Your task to perform on an android device: Do I have any events this weekend? Image 0: 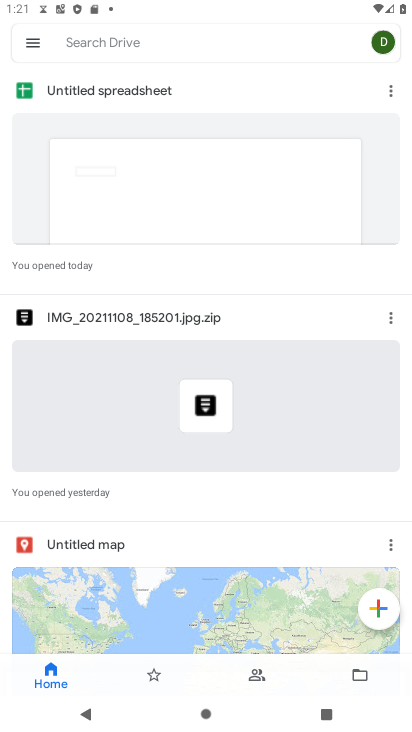
Step 0: press back button
Your task to perform on an android device: Do I have any events this weekend? Image 1: 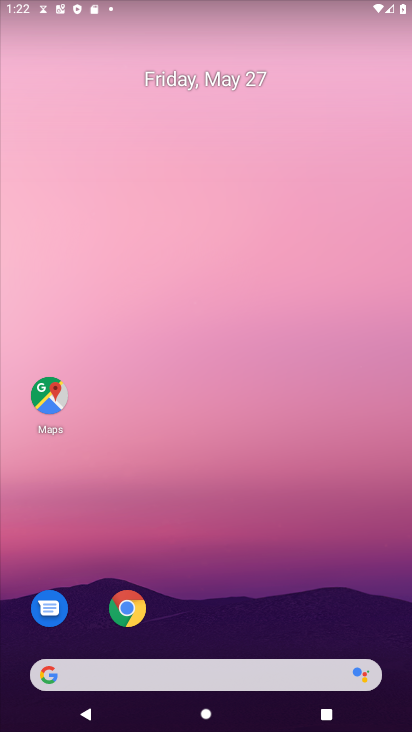
Step 1: drag from (213, 612) to (284, 28)
Your task to perform on an android device: Do I have any events this weekend? Image 2: 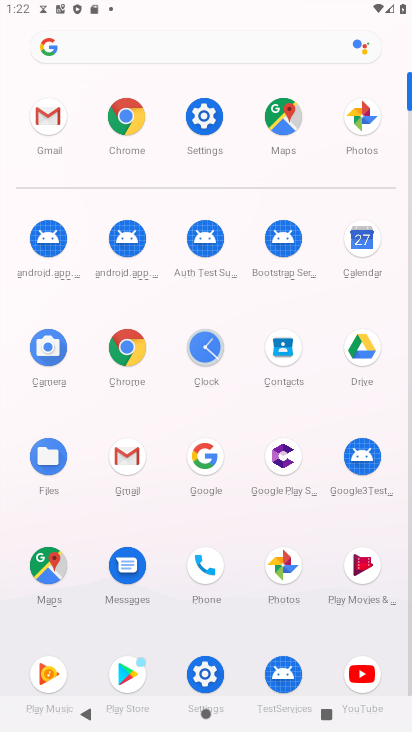
Step 2: click (360, 236)
Your task to perform on an android device: Do I have any events this weekend? Image 3: 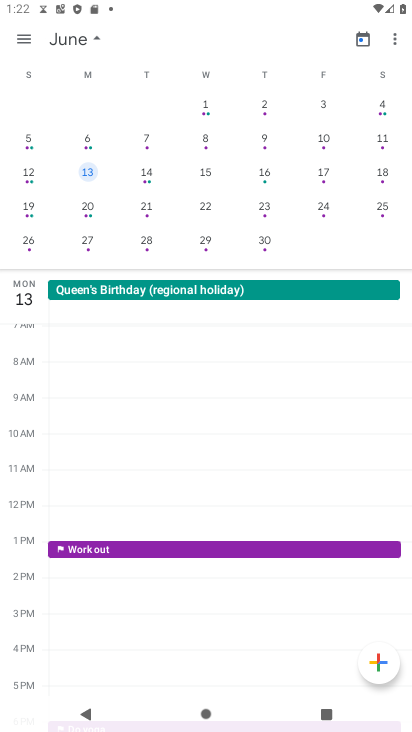
Step 3: drag from (26, 183) to (386, 170)
Your task to perform on an android device: Do I have any events this weekend? Image 4: 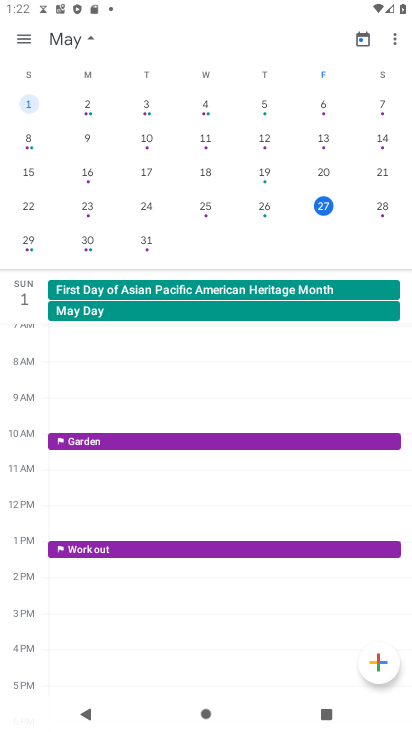
Step 4: click (22, 38)
Your task to perform on an android device: Do I have any events this weekend? Image 5: 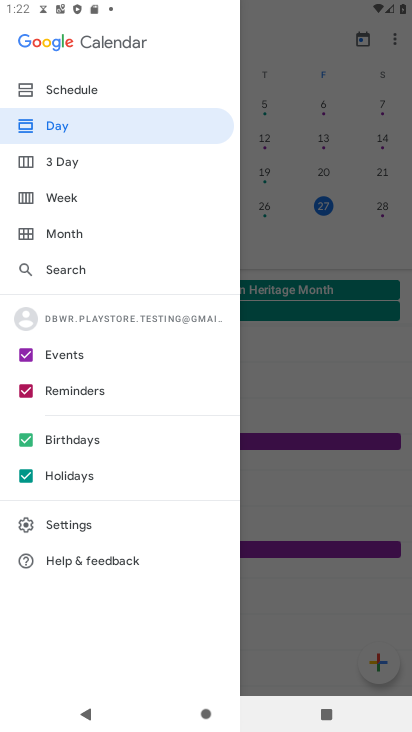
Step 5: click (76, 87)
Your task to perform on an android device: Do I have any events this weekend? Image 6: 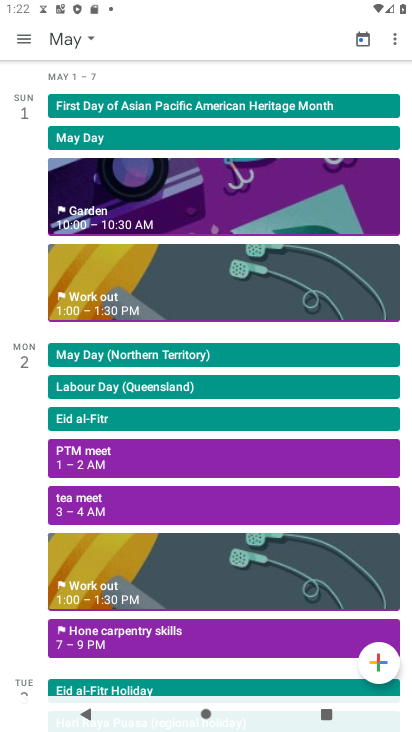
Step 6: click (91, 45)
Your task to perform on an android device: Do I have any events this weekend? Image 7: 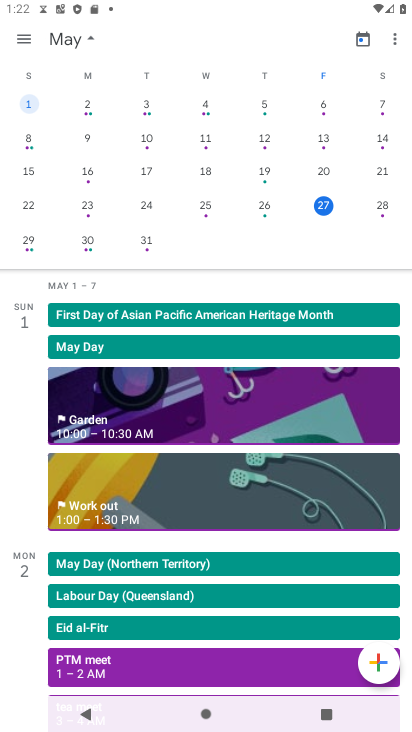
Step 7: click (378, 209)
Your task to perform on an android device: Do I have any events this weekend? Image 8: 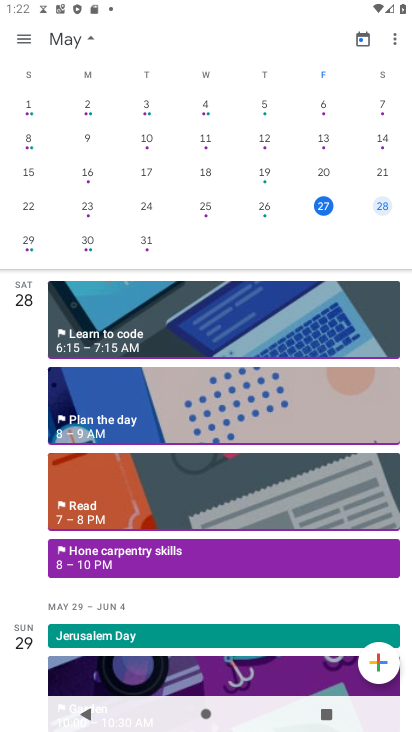
Step 8: click (92, 633)
Your task to perform on an android device: Do I have any events this weekend? Image 9: 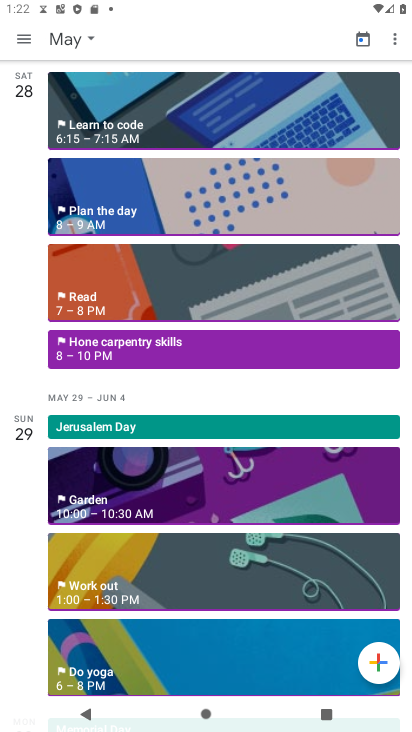
Step 9: task complete